Your task to perform on an android device: turn off airplane mode Image 0: 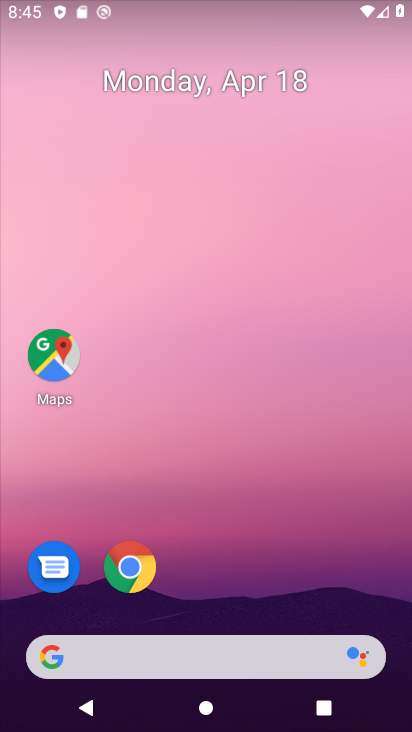
Step 0: drag from (182, 432) to (236, 3)
Your task to perform on an android device: turn off airplane mode Image 1: 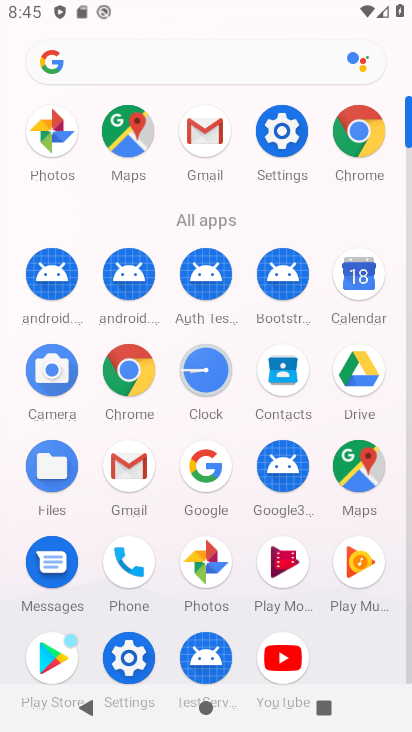
Step 1: click (280, 127)
Your task to perform on an android device: turn off airplane mode Image 2: 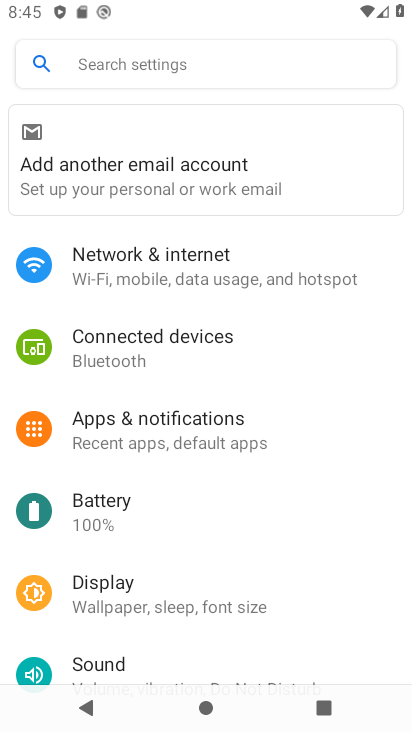
Step 2: click (142, 264)
Your task to perform on an android device: turn off airplane mode Image 3: 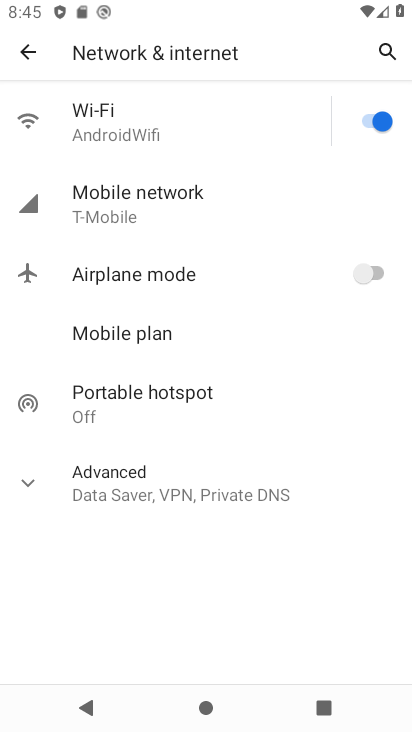
Step 3: task complete